Your task to perform on an android device: Go to Reddit.com Image 0: 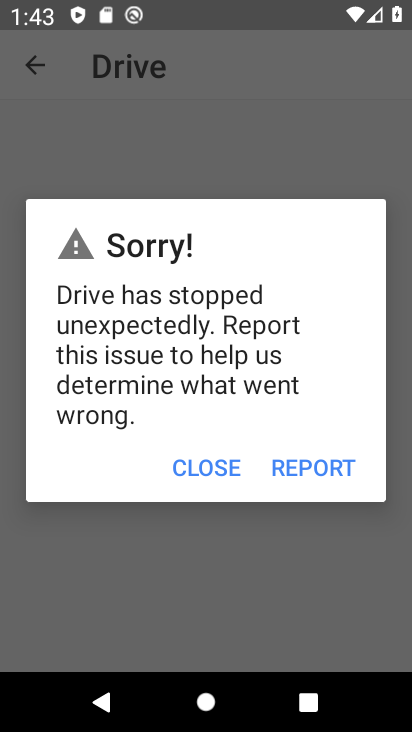
Step 0: press back button
Your task to perform on an android device: Go to Reddit.com Image 1: 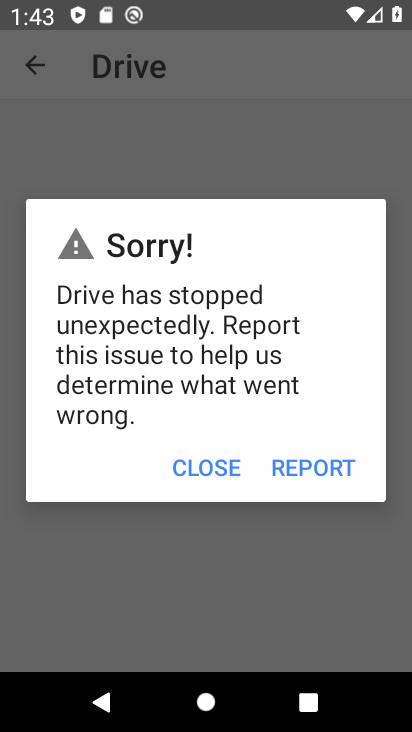
Step 1: press home button
Your task to perform on an android device: Go to Reddit.com Image 2: 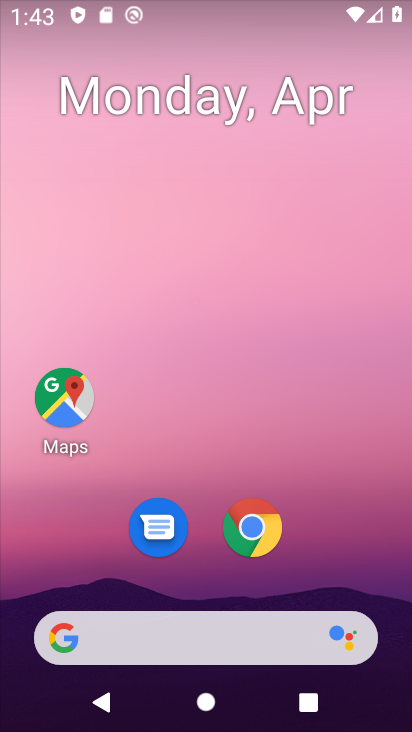
Step 2: drag from (329, 570) to (323, 36)
Your task to perform on an android device: Go to Reddit.com Image 3: 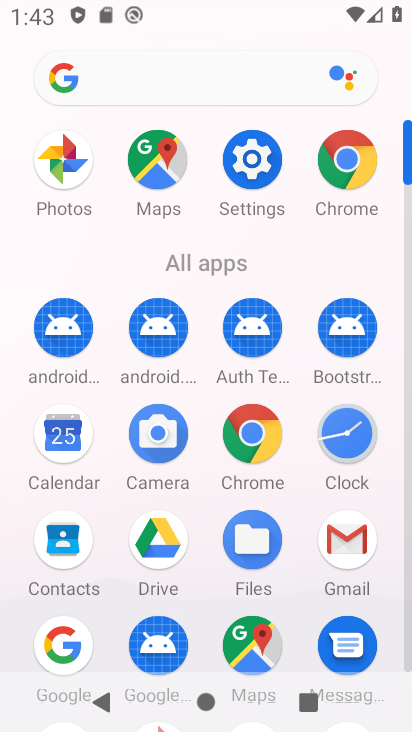
Step 3: click (352, 155)
Your task to perform on an android device: Go to Reddit.com Image 4: 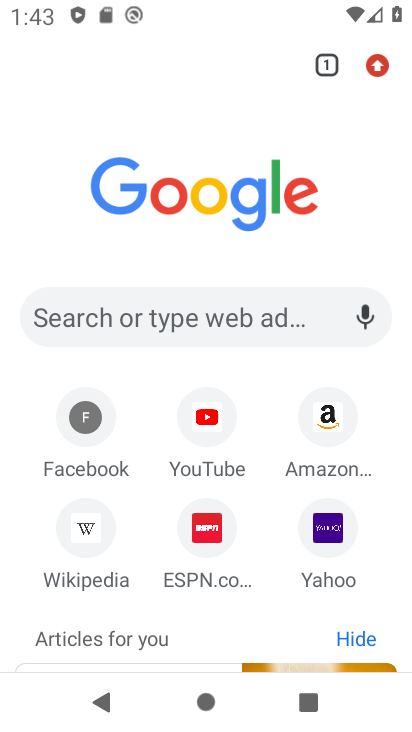
Step 4: click (161, 331)
Your task to perform on an android device: Go to Reddit.com Image 5: 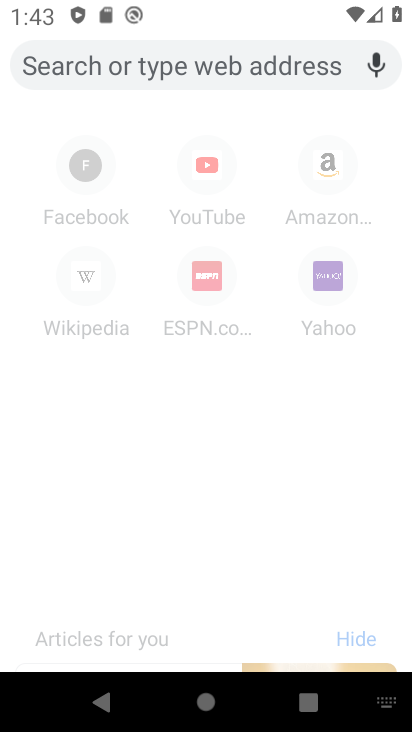
Step 5: type "Reddit.com"
Your task to perform on an android device: Go to Reddit.com Image 6: 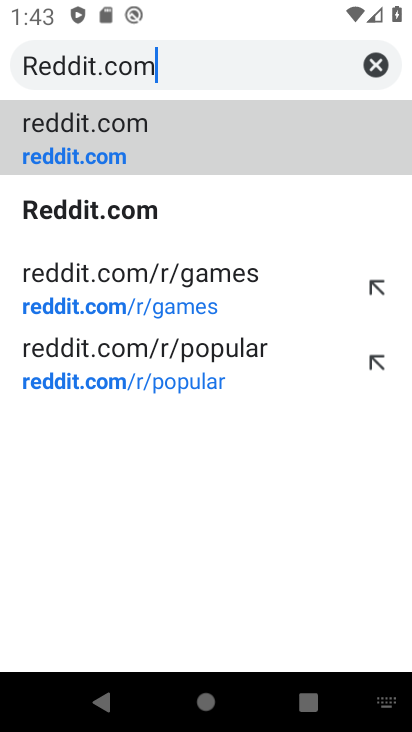
Step 6: type ""
Your task to perform on an android device: Go to Reddit.com Image 7: 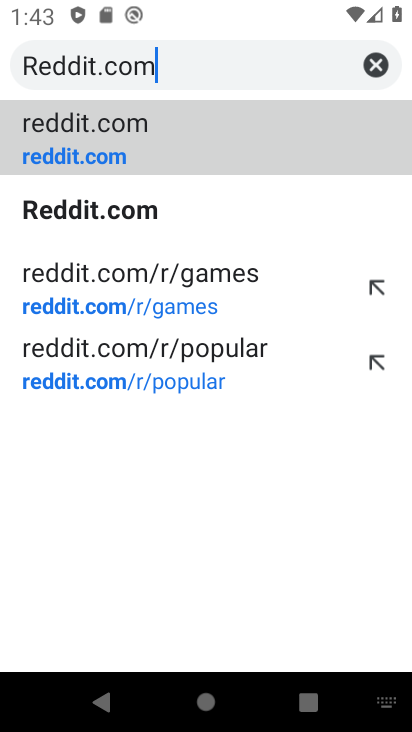
Step 7: click (200, 197)
Your task to perform on an android device: Go to Reddit.com Image 8: 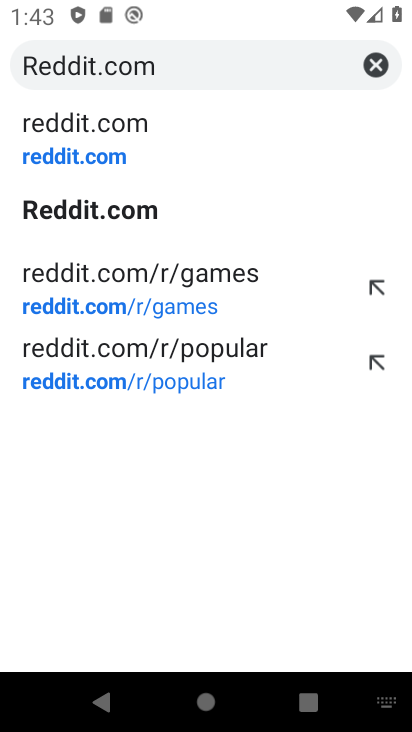
Step 8: click (150, 121)
Your task to perform on an android device: Go to Reddit.com Image 9: 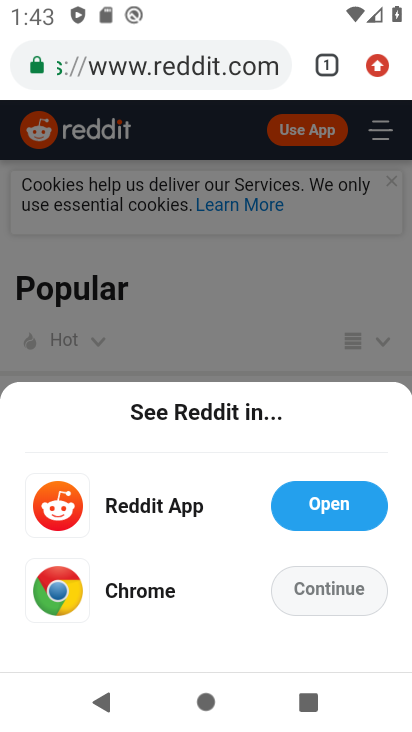
Step 9: task complete